Your task to perform on an android device: View the shopping cart on costco. Add "logitech g910" to the cart on costco, then select checkout. Image 0: 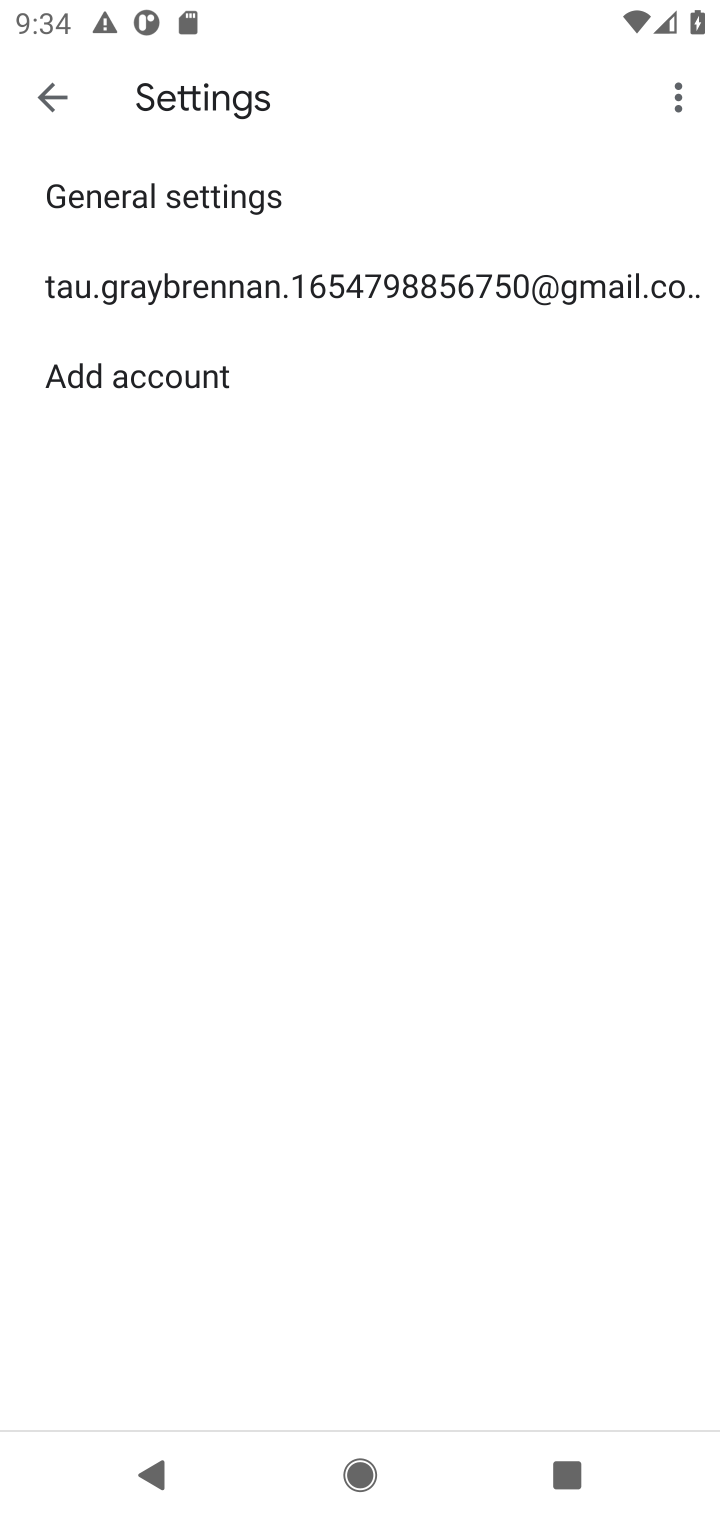
Step 0: press home button
Your task to perform on an android device: View the shopping cart on costco. Add "logitech g910" to the cart on costco, then select checkout. Image 1: 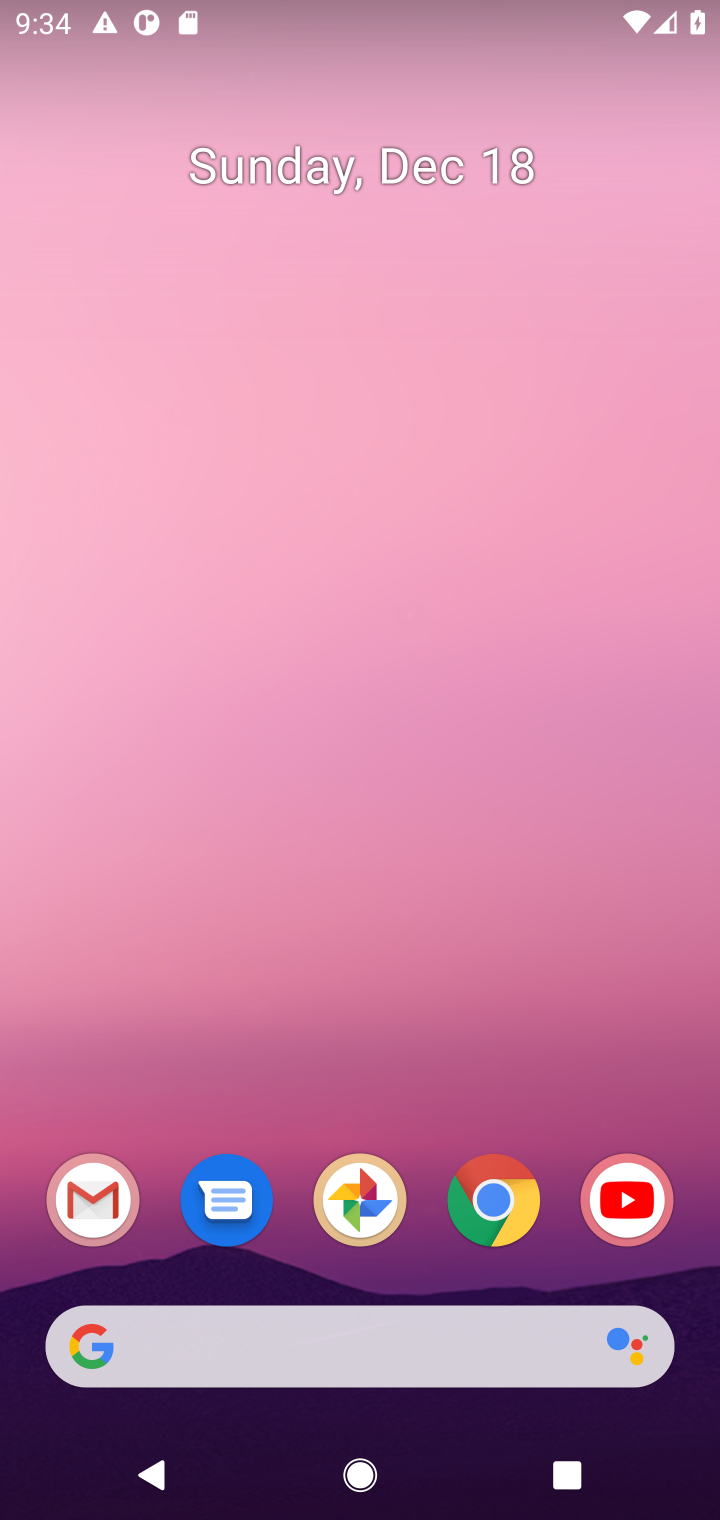
Step 1: click (498, 1199)
Your task to perform on an android device: View the shopping cart on costco. Add "logitech g910" to the cart on costco, then select checkout. Image 2: 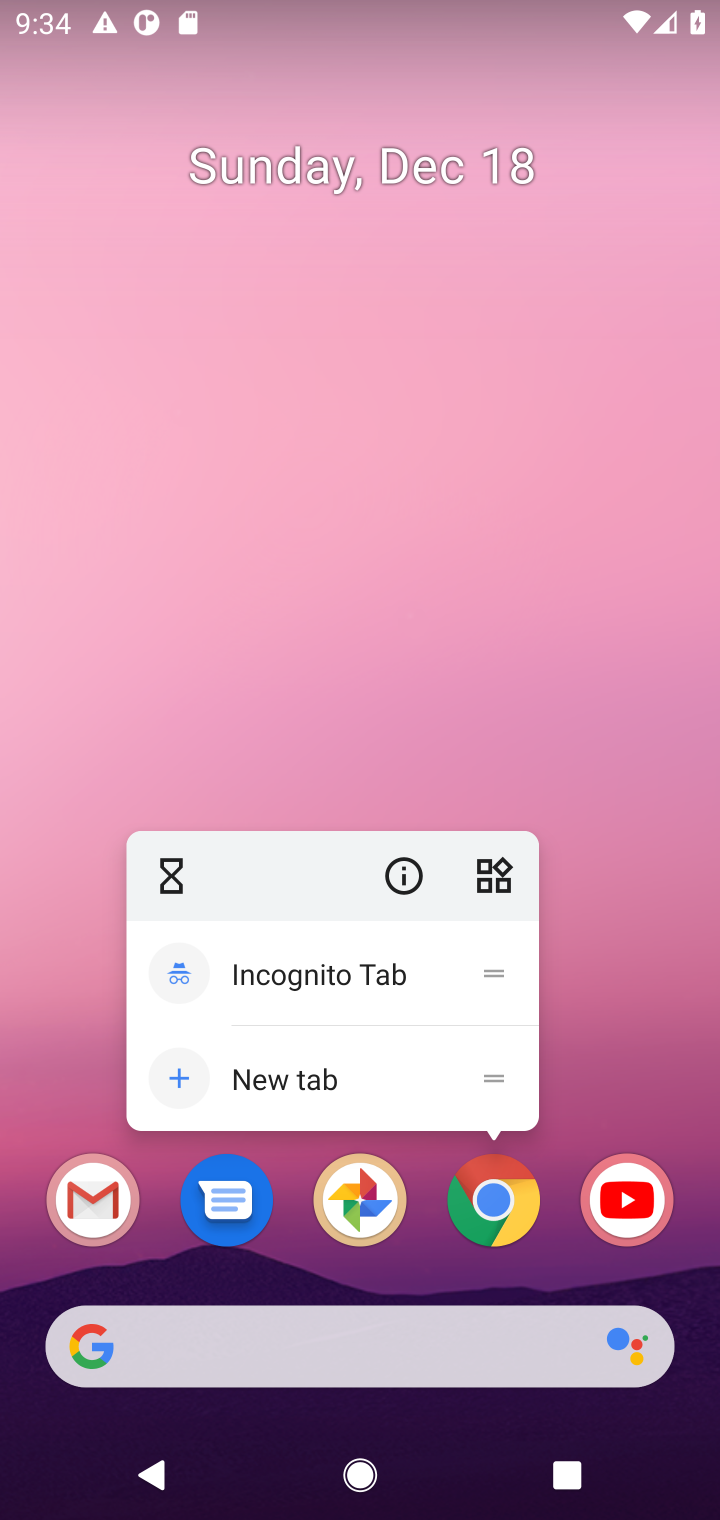
Step 2: click (498, 1199)
Your task to perform on an android device: View the shopping cart on costco. Add "logitech g910" to the cart on costco, then select checkout. Image 3: 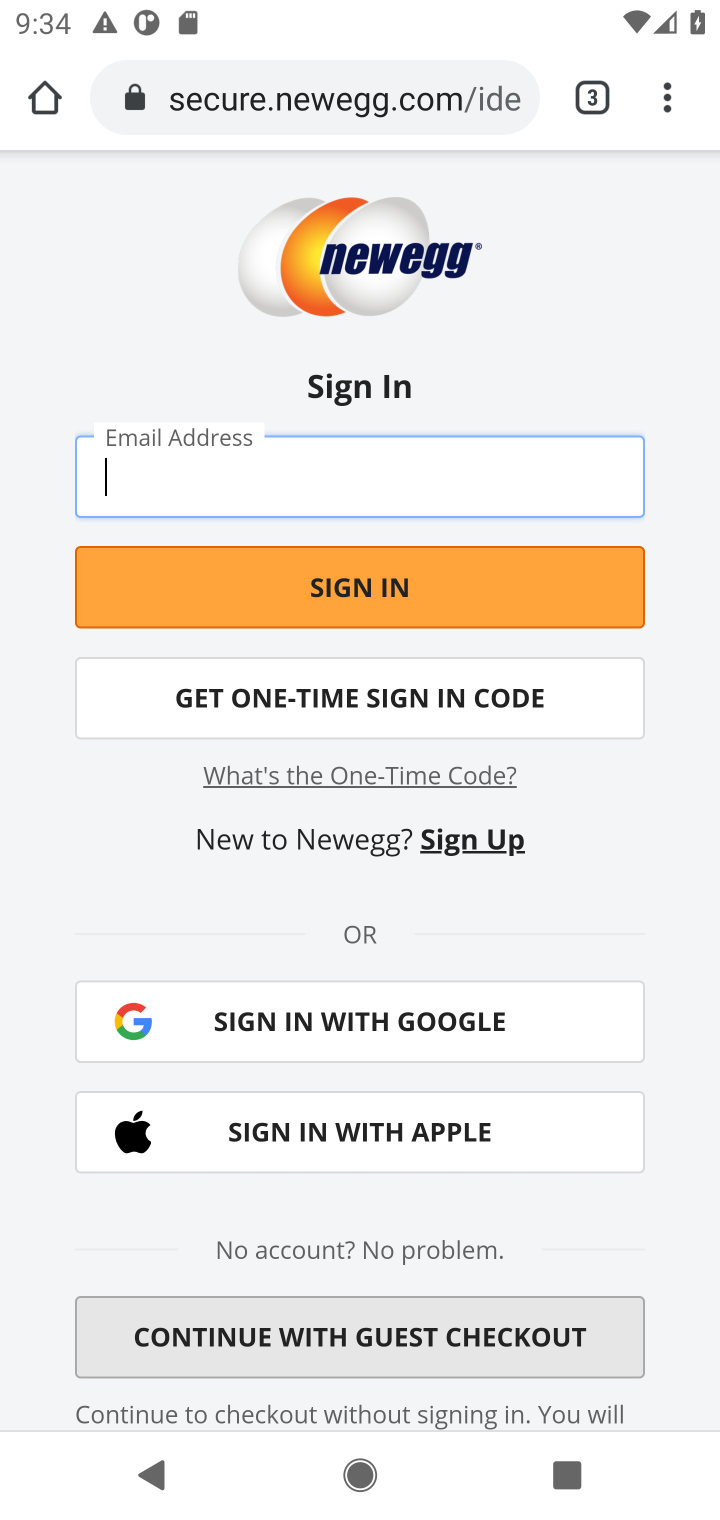
Step 3: click (317, 101)
Your task to perform on an android device: View the shopping cart on costco. Add "logitech g910" to the cart on costco, then select checkout. Image 4: 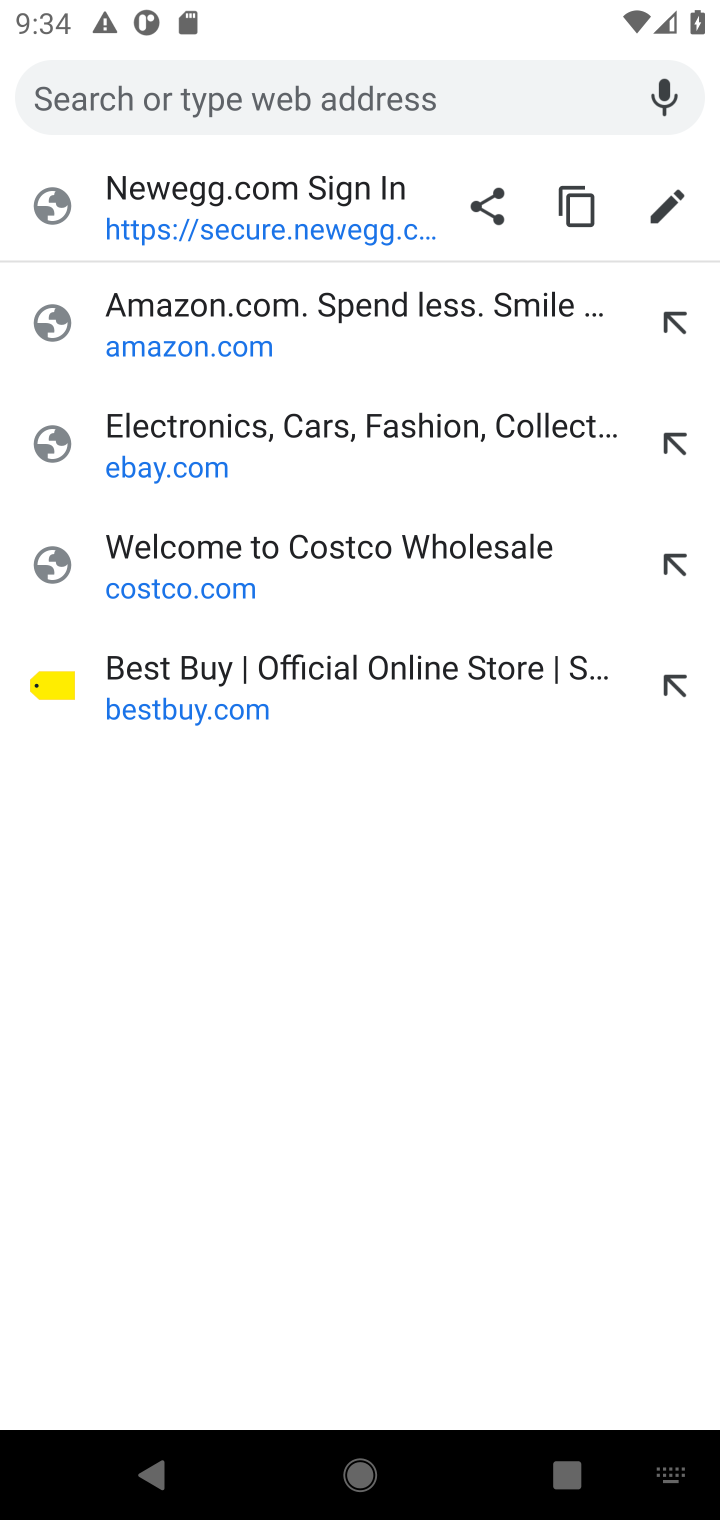
Step 4: click (149, 553)
Your task to perform on an android device: View the shopping cart on costco. Add "logitech g910" to the cart on costco, then select checkout. Image 5: 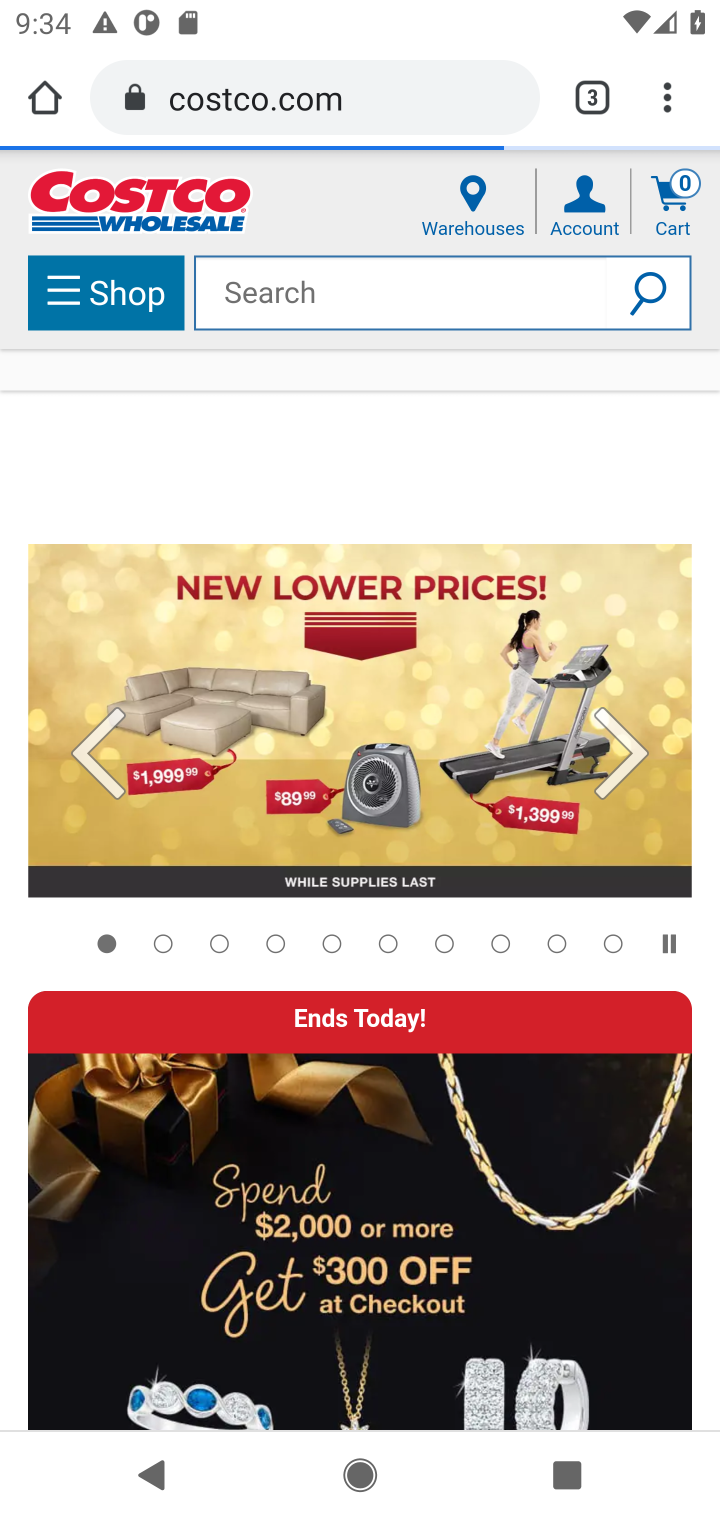
Step 5: click (676, 202)
Your task to perform on an android device: View the shopping cart on costco. Add "logitech g910" to the cart on costco, then select checkout. Image 6: 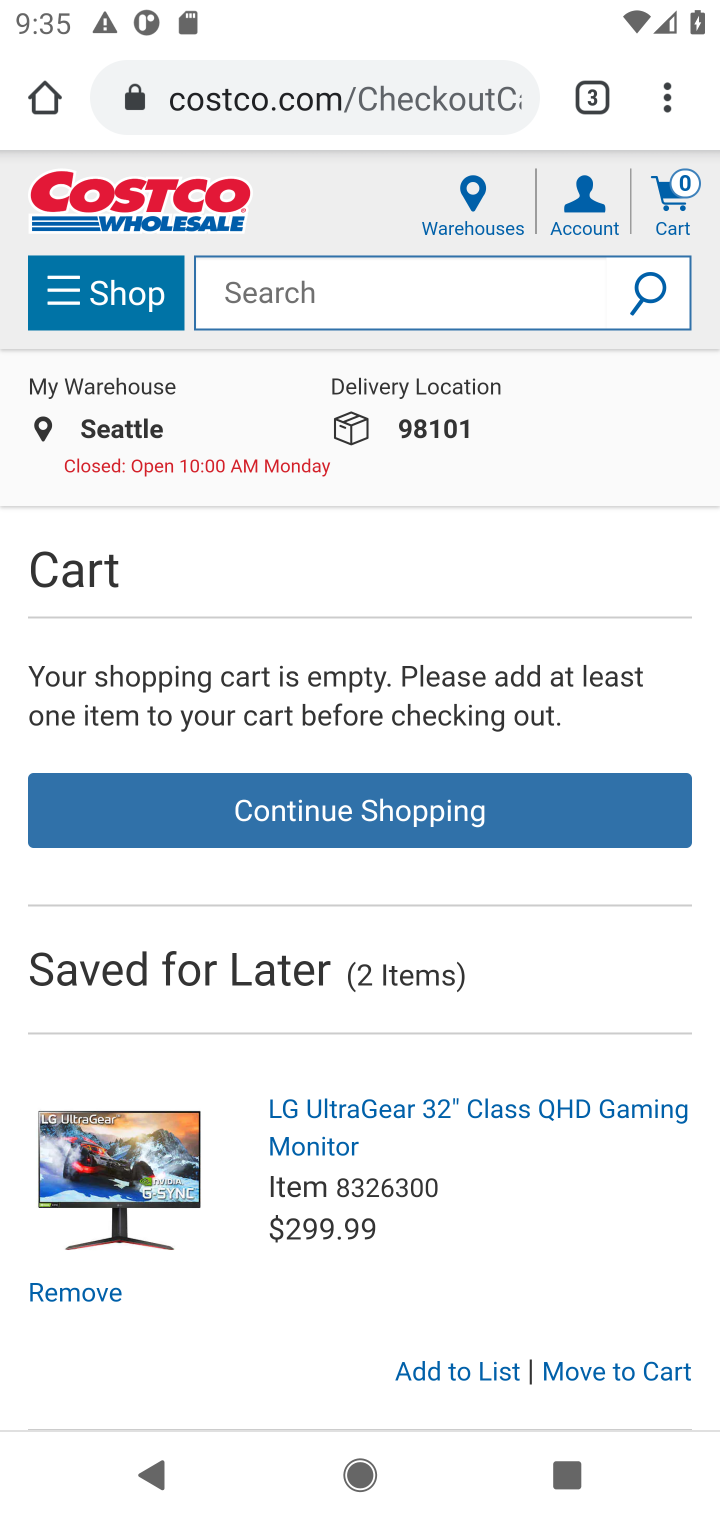
Step 6: click (361, 305)
Your task to perform on an android device: View the shopping cart on costco. Add "logitech g910" to the cart on costco, then select checkout. Image 7: 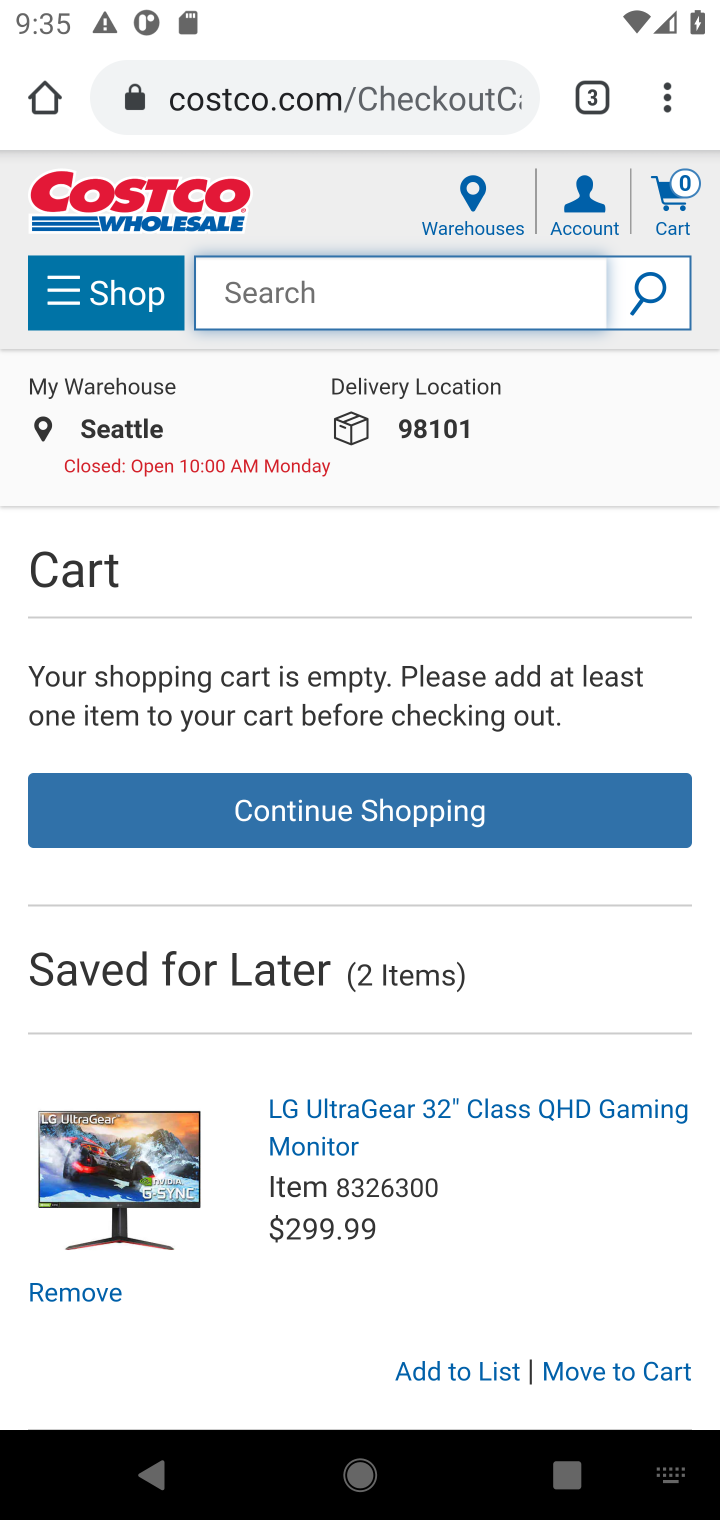
Step 7: type "logitech g910"
Your task to perform on an android device: View the shopping cart on costco. Add "logitech g910" to the cart on costco, then select checkout. Image 8: 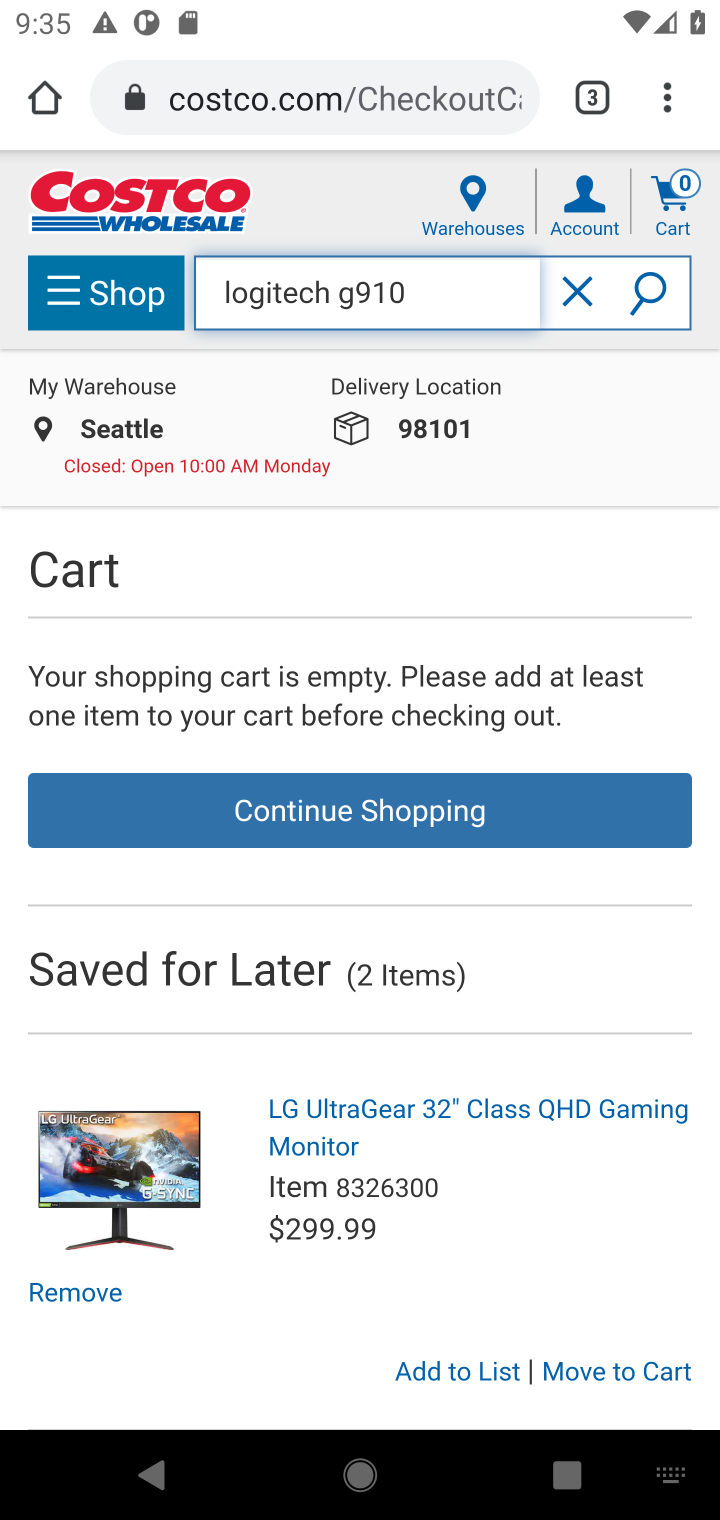
Step 8: click (646, 303)
Your task to perform on an android device: View the shopping cart on costco. Add "logitech g910" to the cart on costco, then select checkout. Image 9: 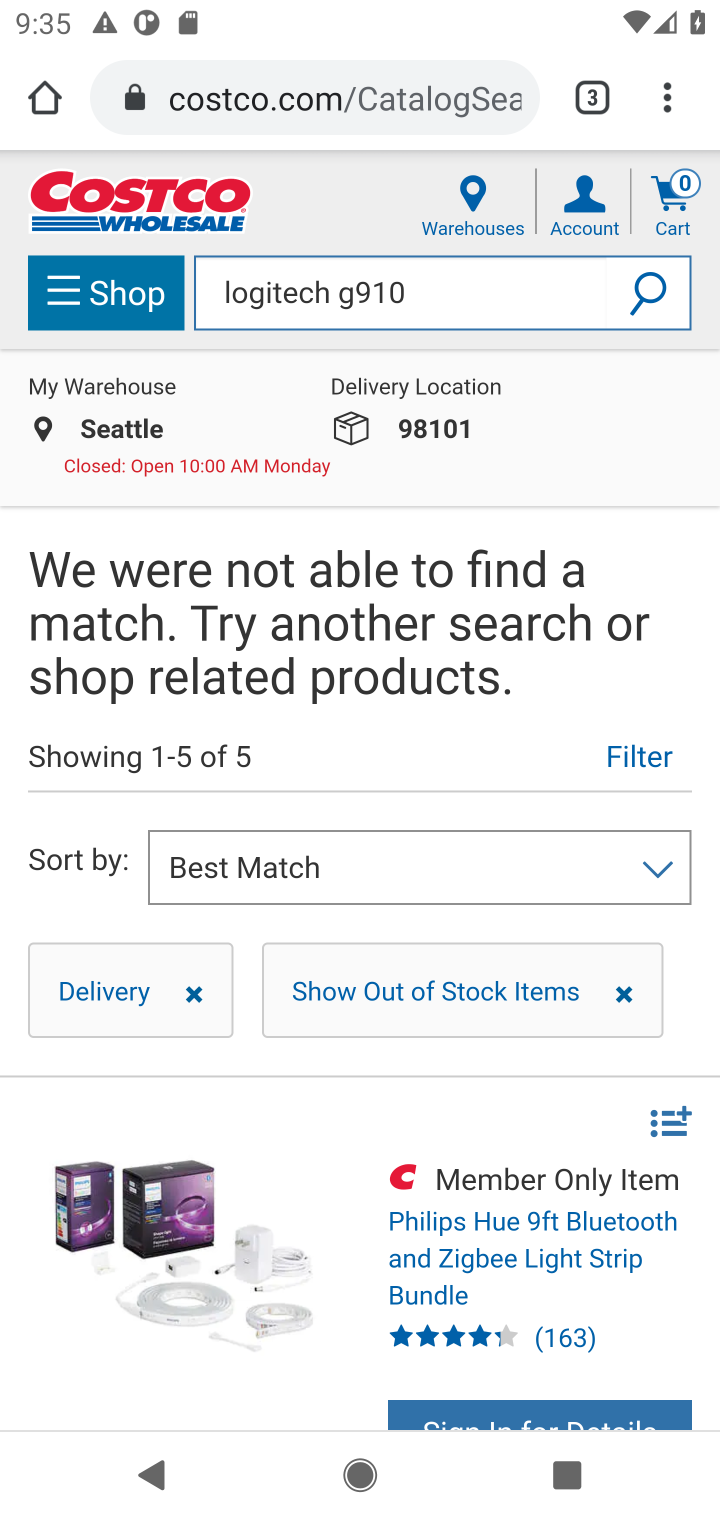
Step 9: task complete